Your task to perform on an android device: turn off location Image 0: 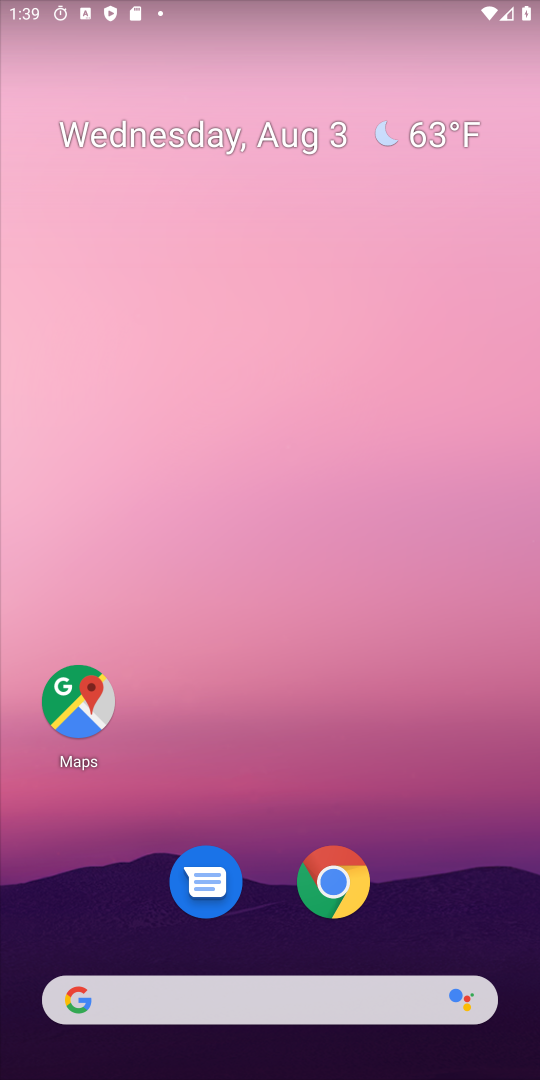
Step 0: drag from (232, 674) to (387, 26)
Your task to perform on an android device: turn off location Image 1: 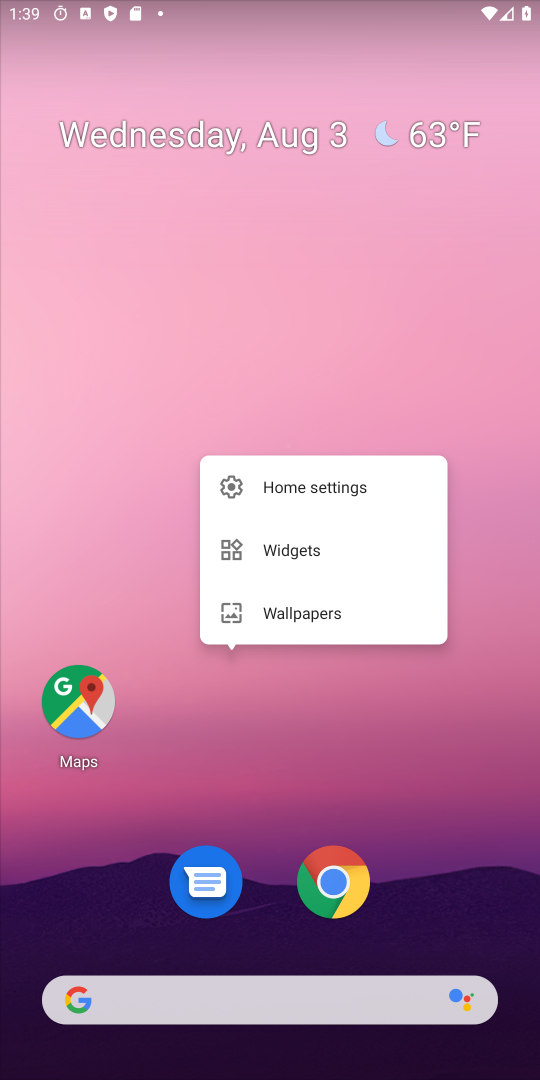
Step 1: click (257, 724)
Your task to perform on an android device: turn off location Image 2: 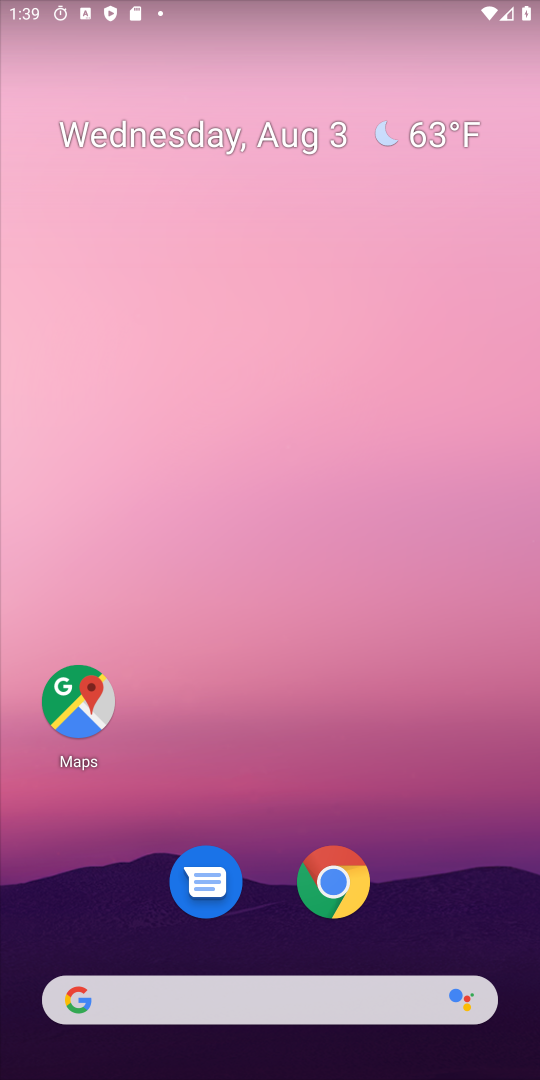
Step 2: drag from (259, 793) to (330, 112)
Your task to perform on an android device: turn off location Image 3: 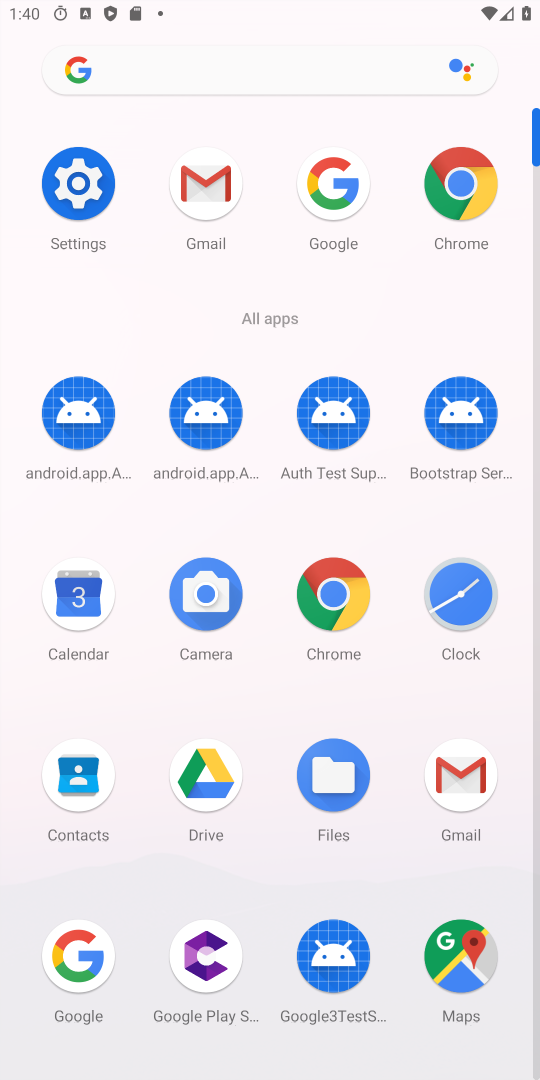
Step 3: click (97, 203)
Your task to perform on an android device: turn off location Image 4: 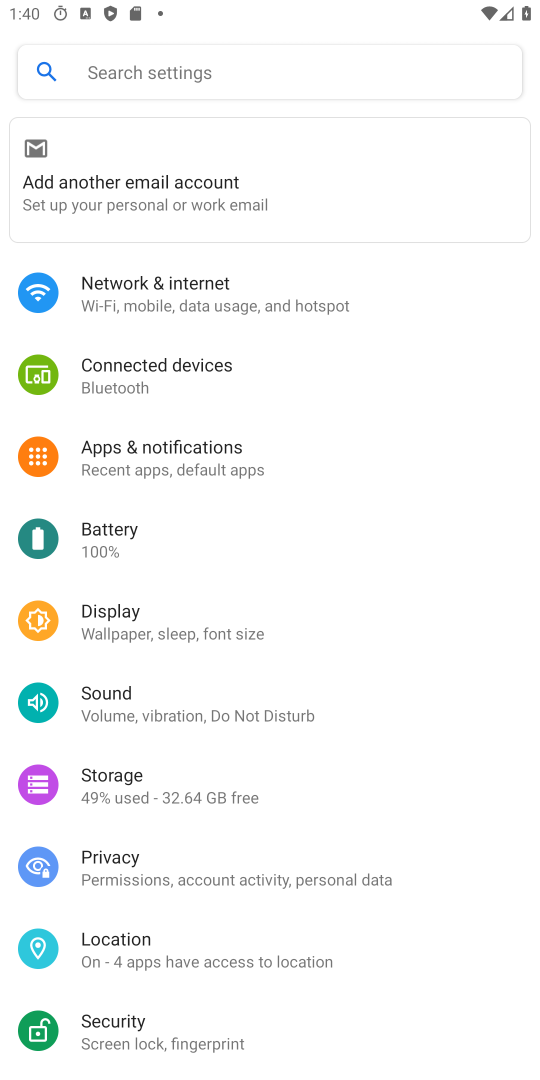
Step 4: click (206, 953)
Your task to perform on an android device: turn off location Image 5: 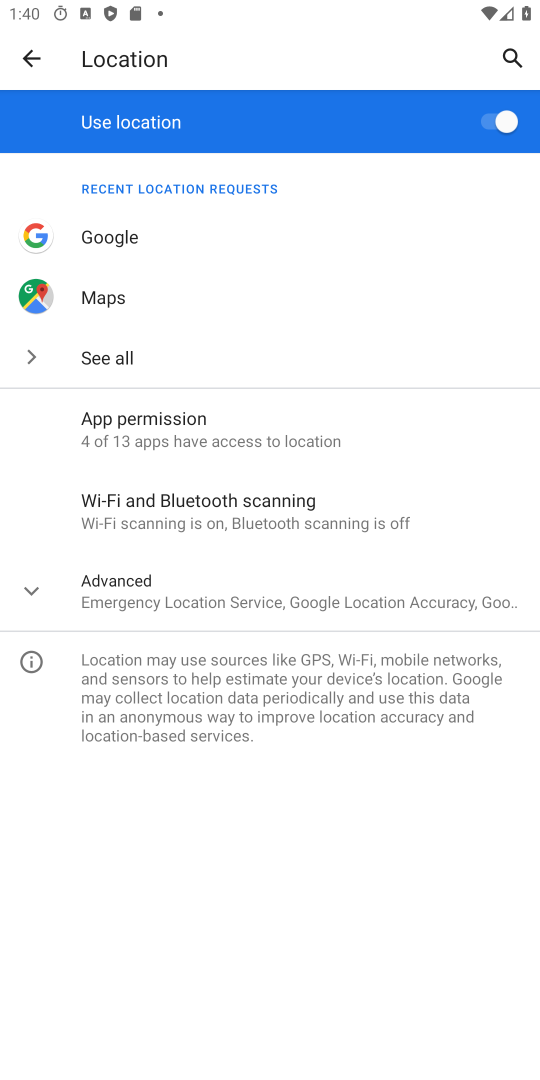
Step 5: click (498, 124)
Your task to perform on an android device: turn off location Image 6: 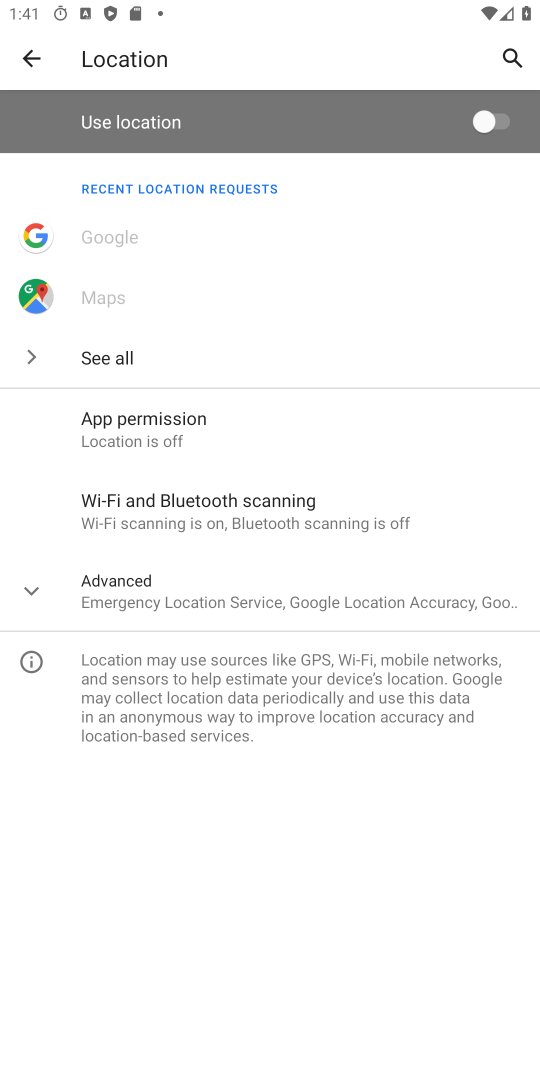
Step 6: task complete